Your task to perform on an android device: toggle show notifications on the lock screen Image 0: 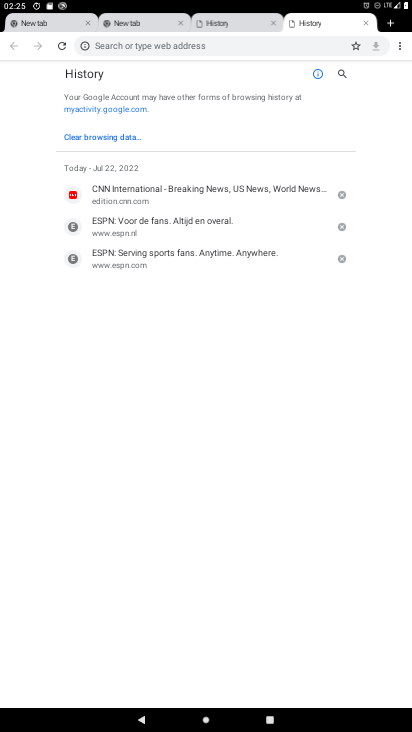
Step 0: press home button
Your task to perform on an android device: toggle show notifications on the lock screen Image 1: 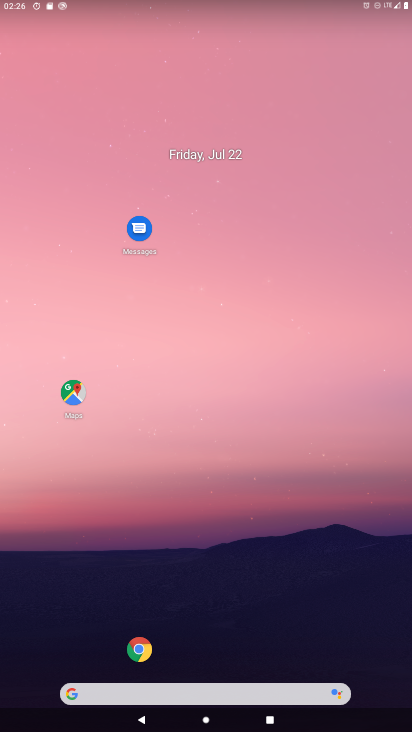
Step 1: drag from (27, 691) to (183, 149)
Your task to perform on an android device: toggle show notifications on the lock screen Image 2: 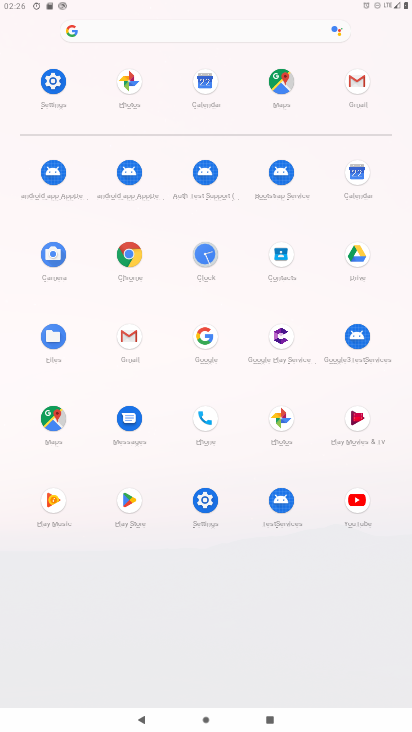
Step 2: click (216, 510)
Your task to perform on an android device: toggle show notifications on the lock screen Image 3: 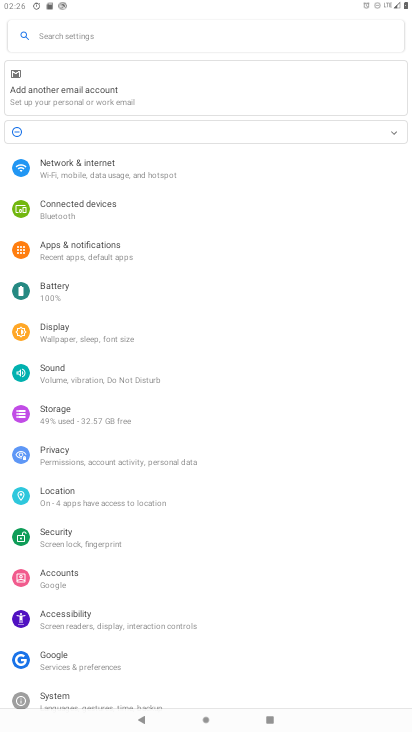
Step 3: click (102, 244)
Your task to perform on an android device: toggle show notifications on the lock screen Image 4: 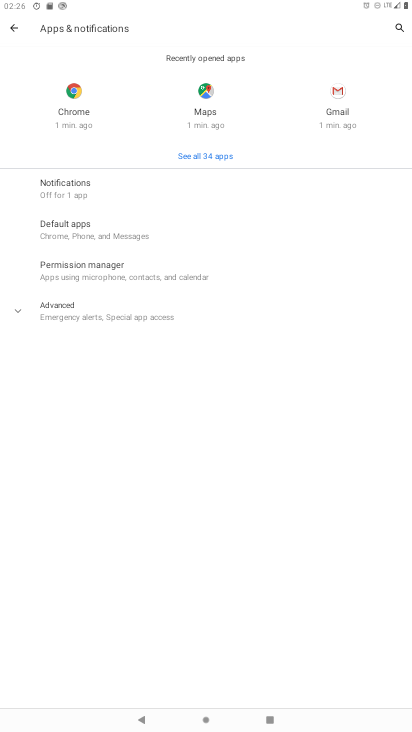
Step 4: click (75, 189)
Your task to perform on an android device: toggle show notifications on the lock screen Image 5: 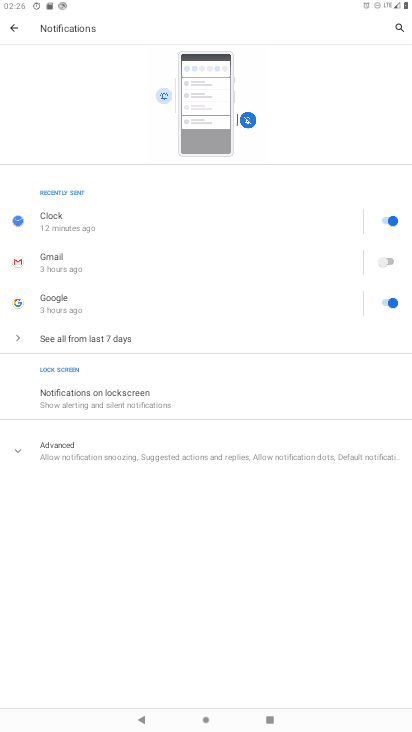
Step 5: click (96, 444)
Your task to perform on an android device: toggle show notifications on the lock screen Image 6: 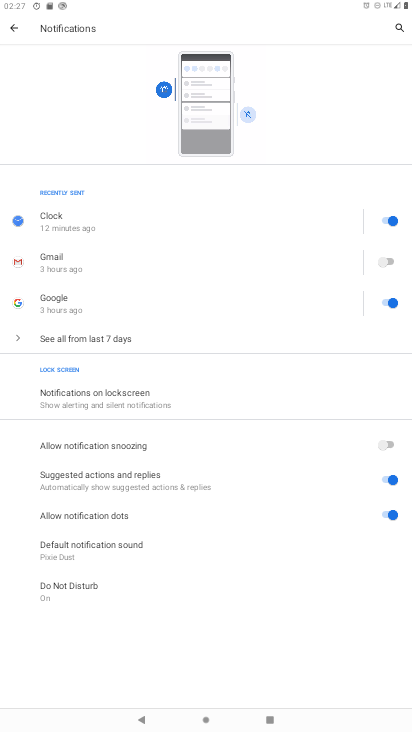
Step 6: click (89, 397)
Your task to perform on an android device: toggle show notifications on the lock screen Image 7: 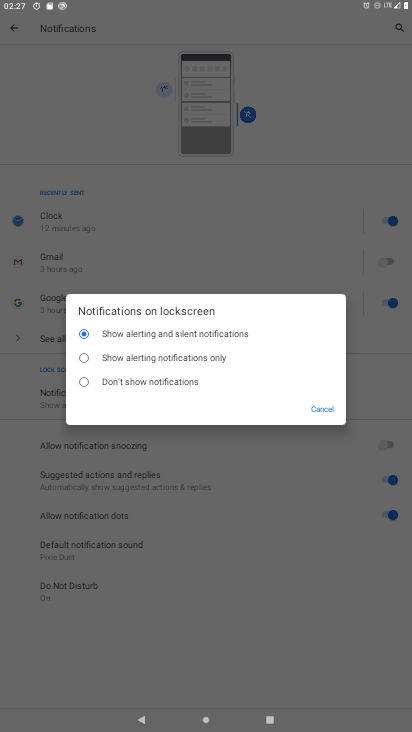
Step 7: task complete